Your task to perform on an android device: Go to accessibility settings Image 0: 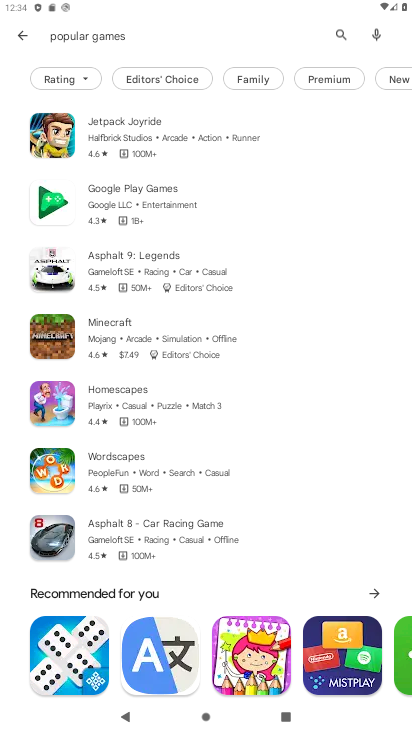
Step 0: press home button
Your task to perform on an android device: Go to accessibility settings Image 1: 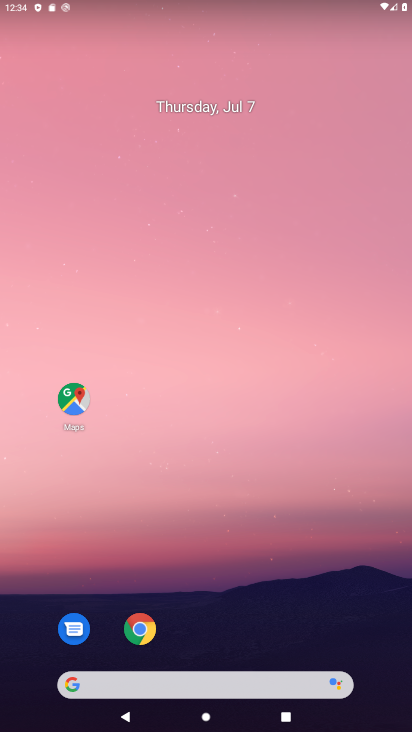
Step 1: drag from (230, 621) to (254, 164)
Your task to perform on an android device: Go to accessibility settings Image 2: 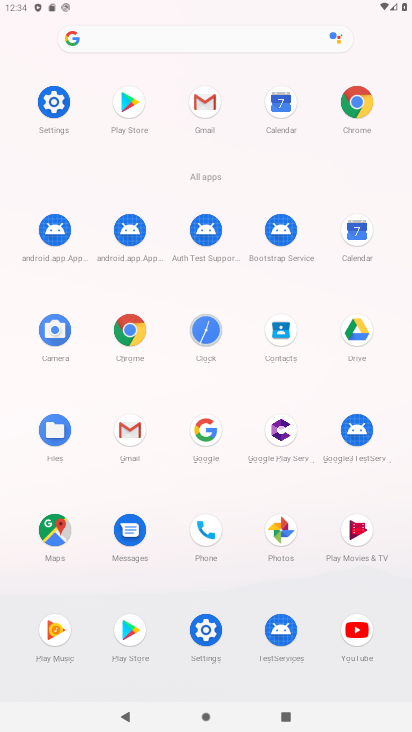
Step 2: click (54, 100)
Your task to perform on an android device: Go to accessibility settings Image 3: 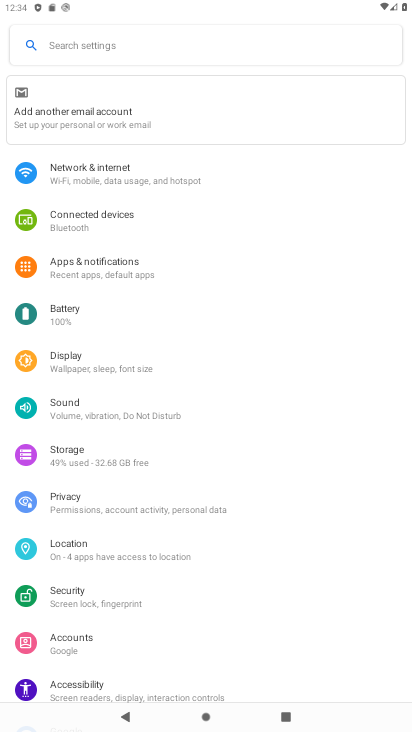
Step 3: click (85, 686)
Your task to perform on an android device: Go to accessibility settings Image 4: 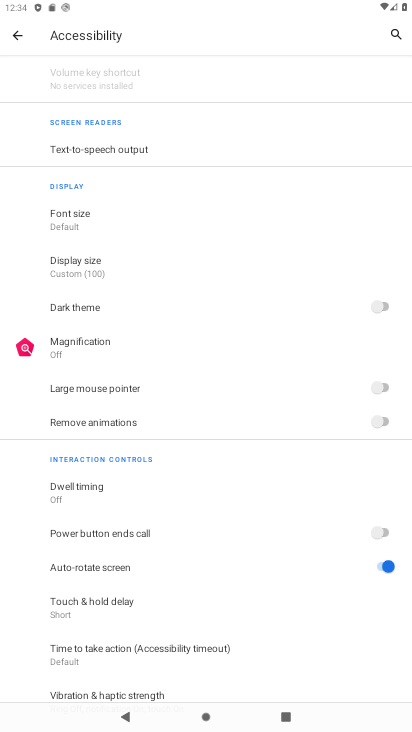
Step 4: task complete